Your task to perform on an android device: open app "Facebook Messenger" (install if not already installed) Image 0: 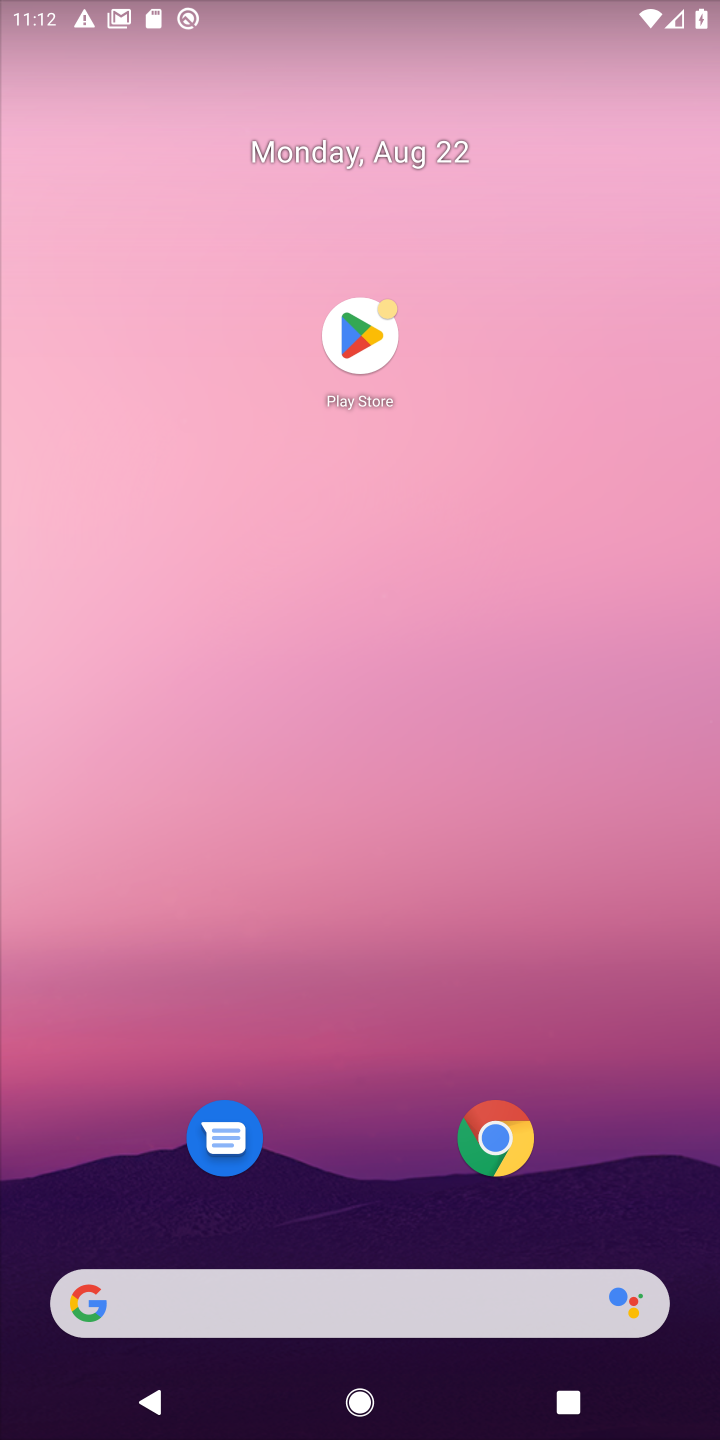
Step 0: click (370, 348)
Your task to perform on an android device: open app "Facebook Messenger" (install if not already installed) Image 1: 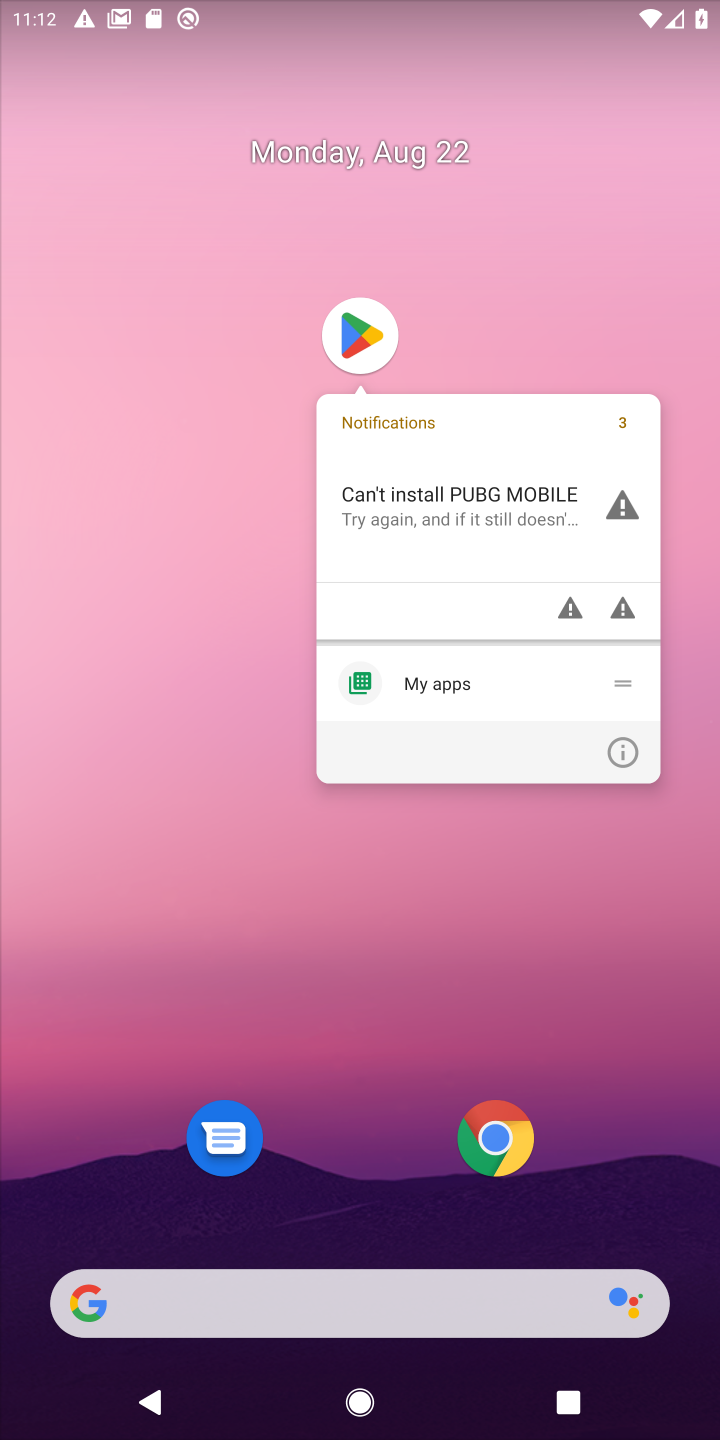
Step 1: click (366, 332)
Your task to perform on an android device: open app "Facebook Messenger" (install if not already installed) Image 2: 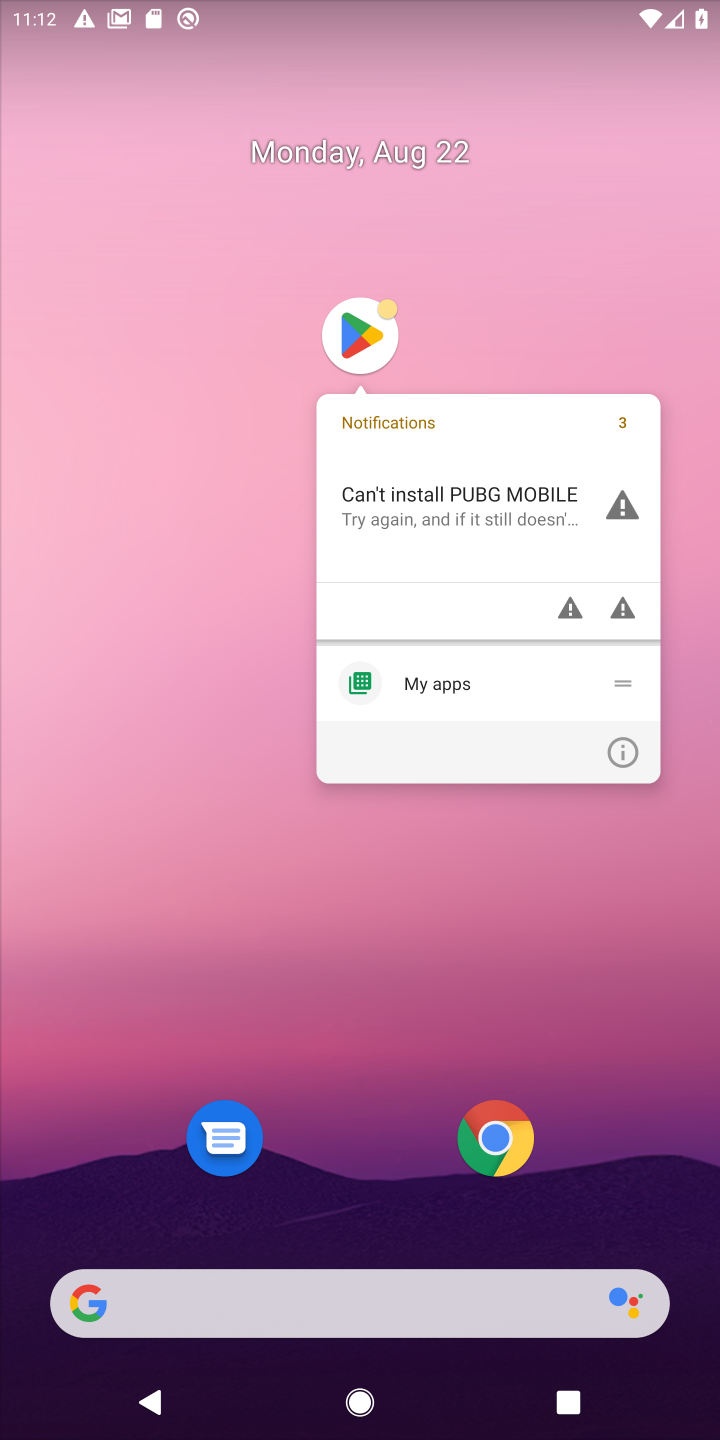
Step 2: click (366, 332)
Your task to perform on an android device: open app "Facebook Messenger" (install if not already installed) Image 3: 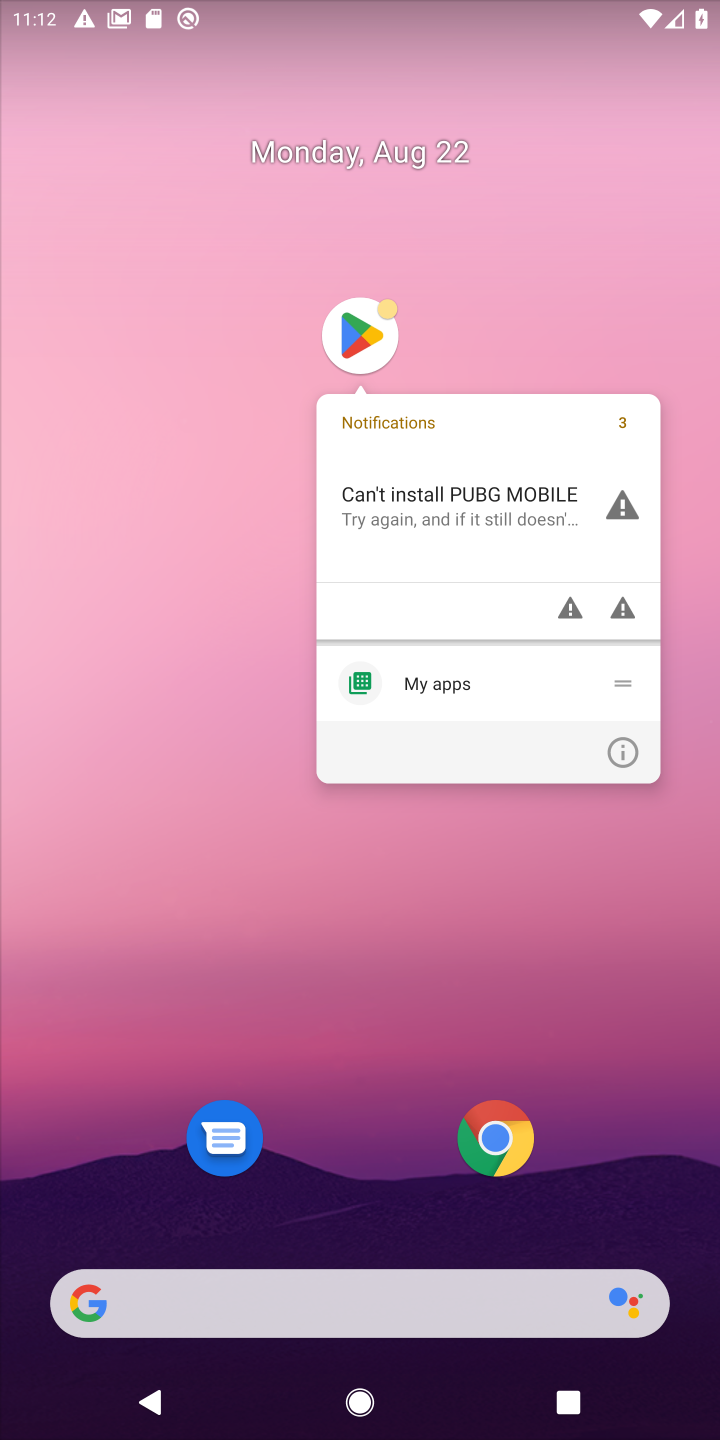
Step 3: click (343, 326)
Your task to perform on an android device: open app "Facebook Messenger" (install if not already installed) Image 4: 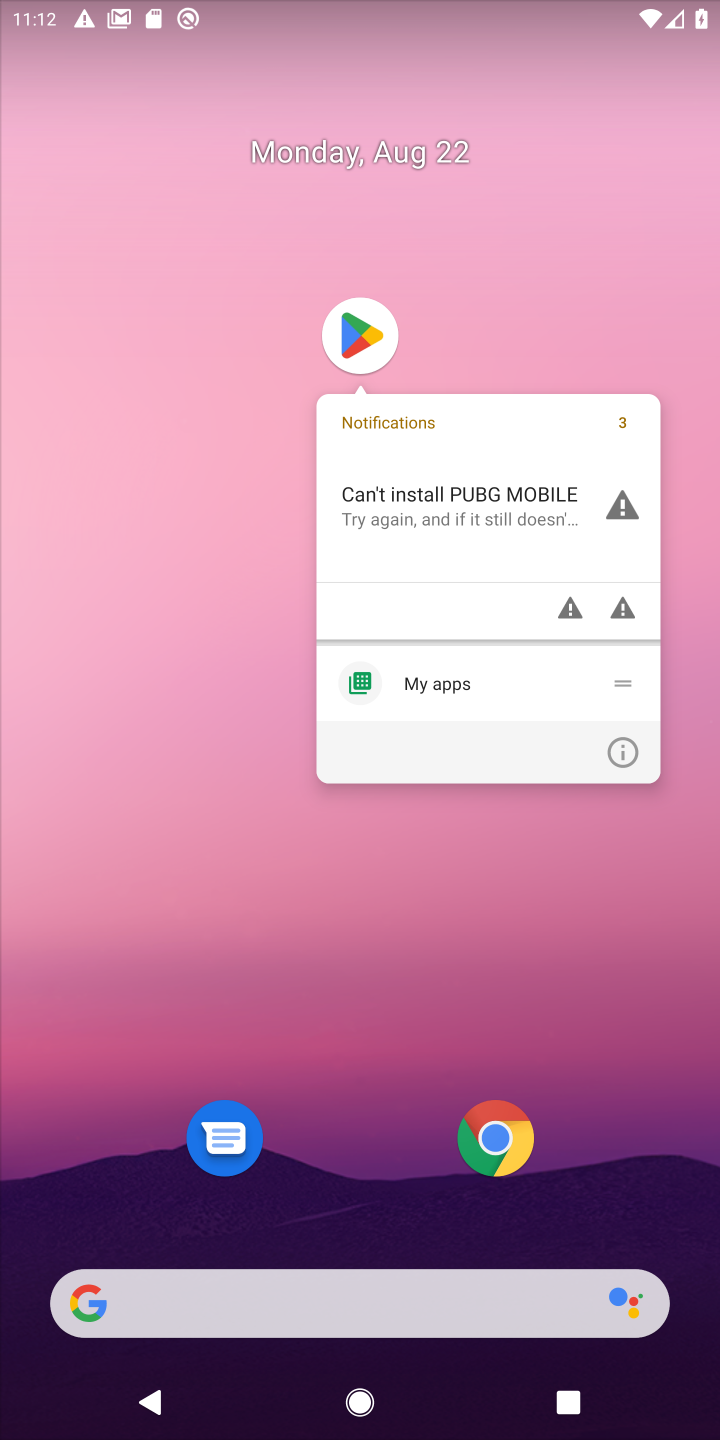
Step 4: click (364, 334)
Your task to perform on an android device: open app "Facebook Messenger" (install if not already installed) Image 5: 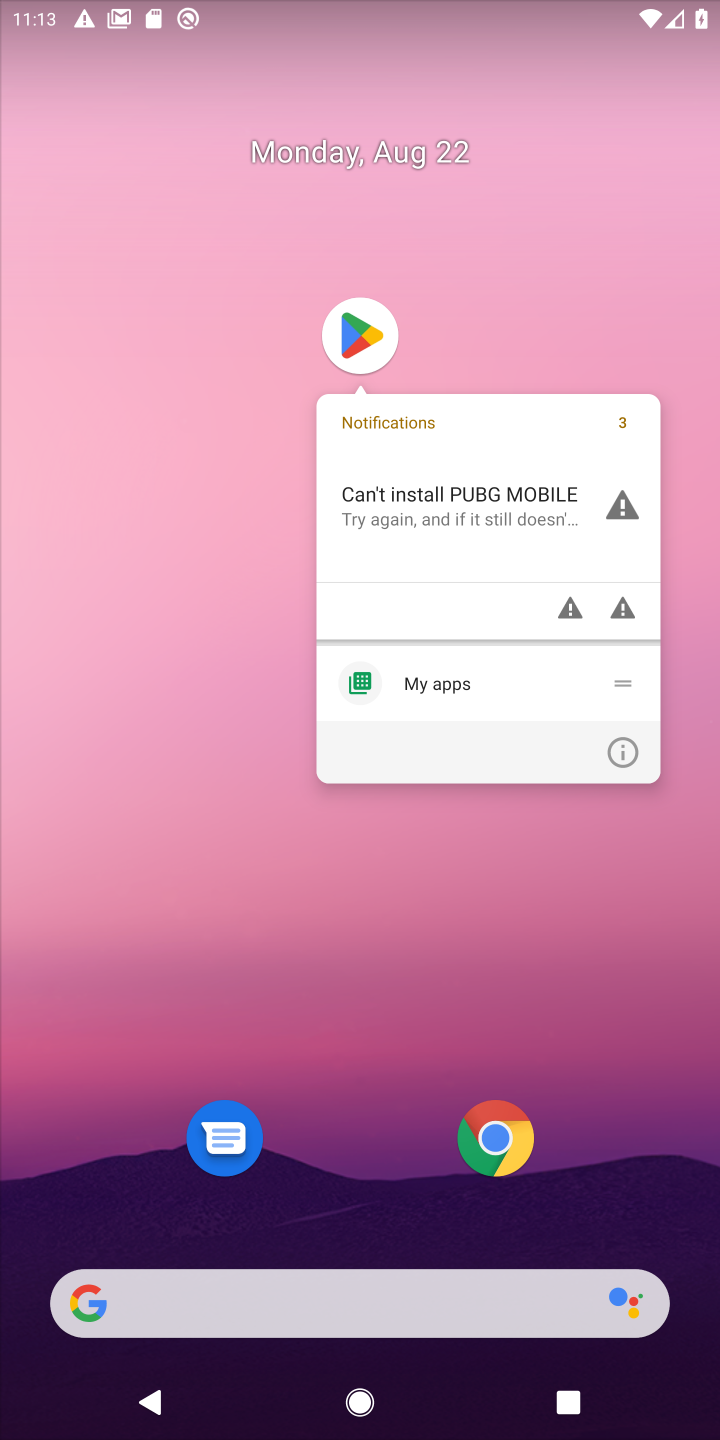
Step 5: click (182, 553)
Your task to perform on an android device: open app "Facebook Messenger" (install if not already installed) Image 6: 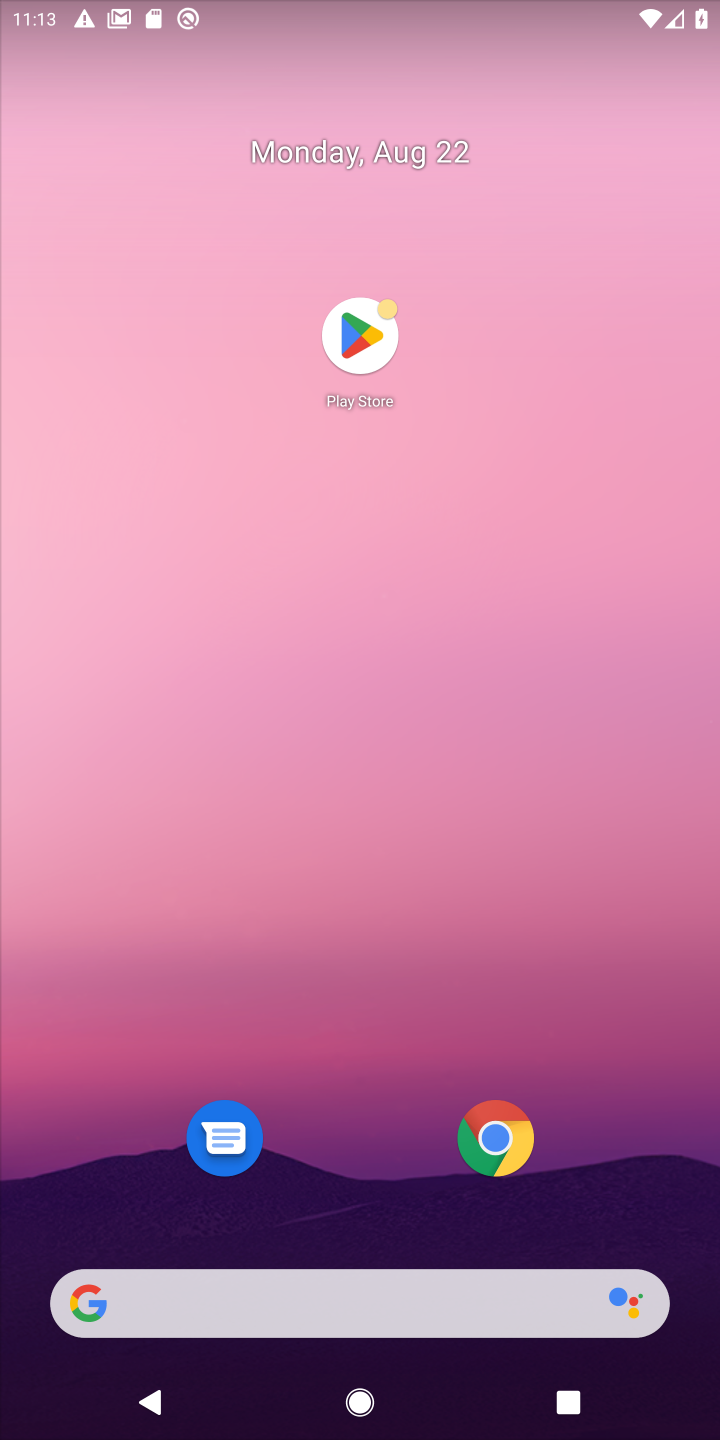
Step 6: click (581, 190)
Your task to perform on an android device: open app "Facebook Messenger" (install if not already installed) Image 7: 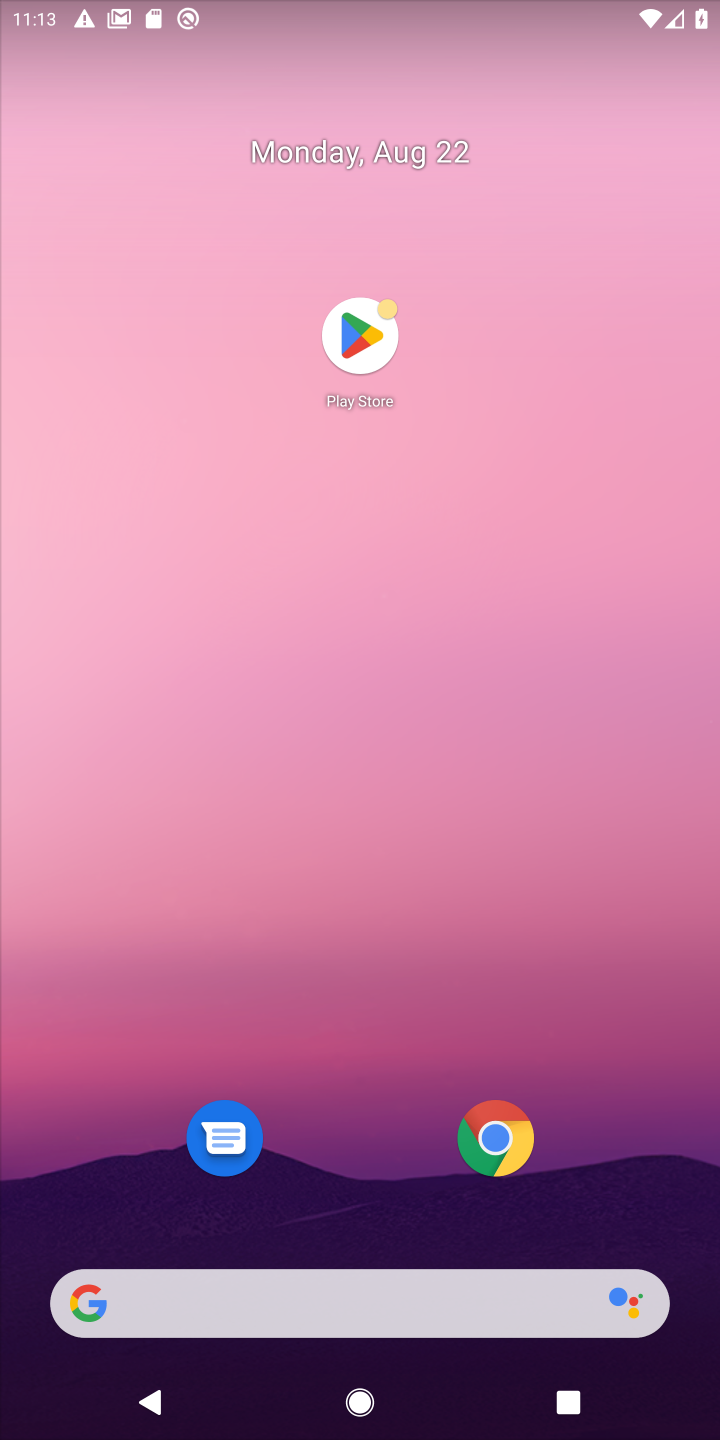
Step 7: click (357, 350)
Your task to perform on an android device: open app "Facebook Messenger" (install if not already installed) Image 8: 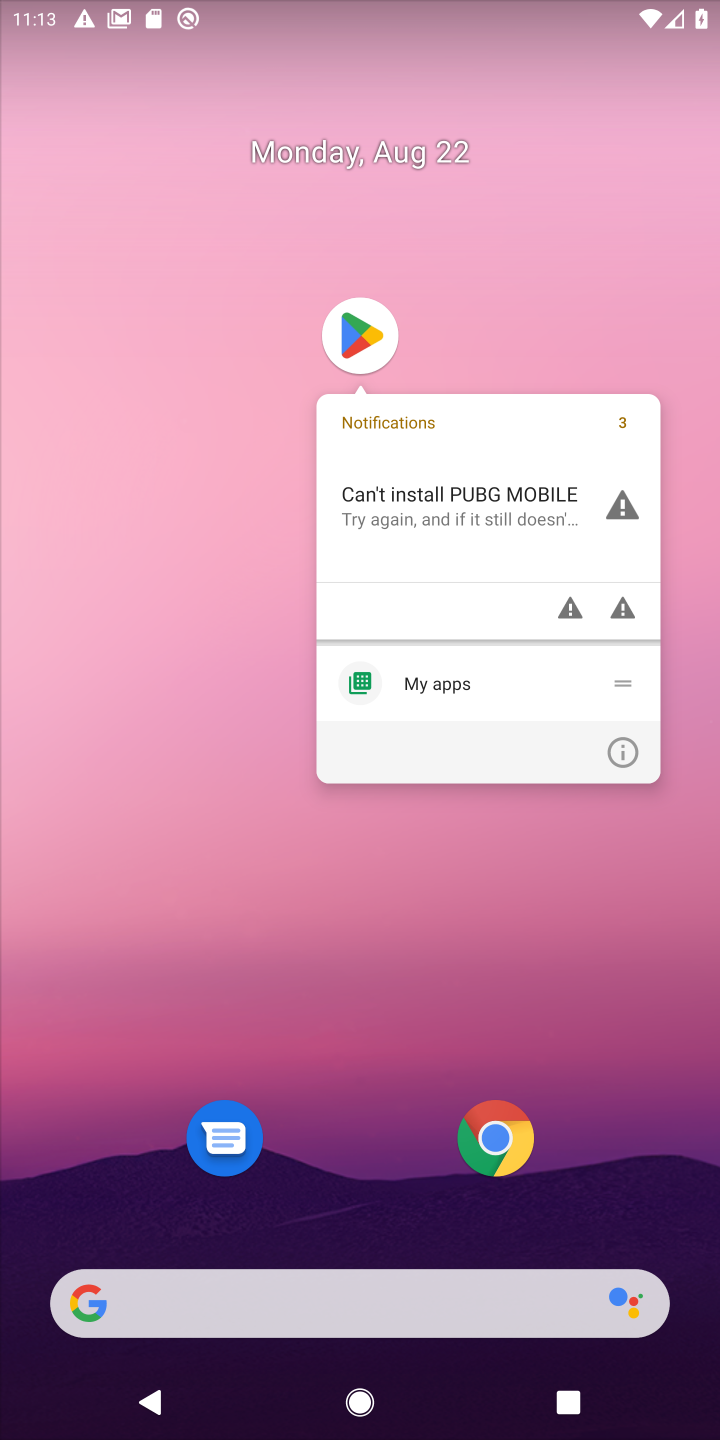
Step 8: click (342, 332)
Your task to perform on an android device: open app "Facebook Messenger" (install if not already installed) Image 9: 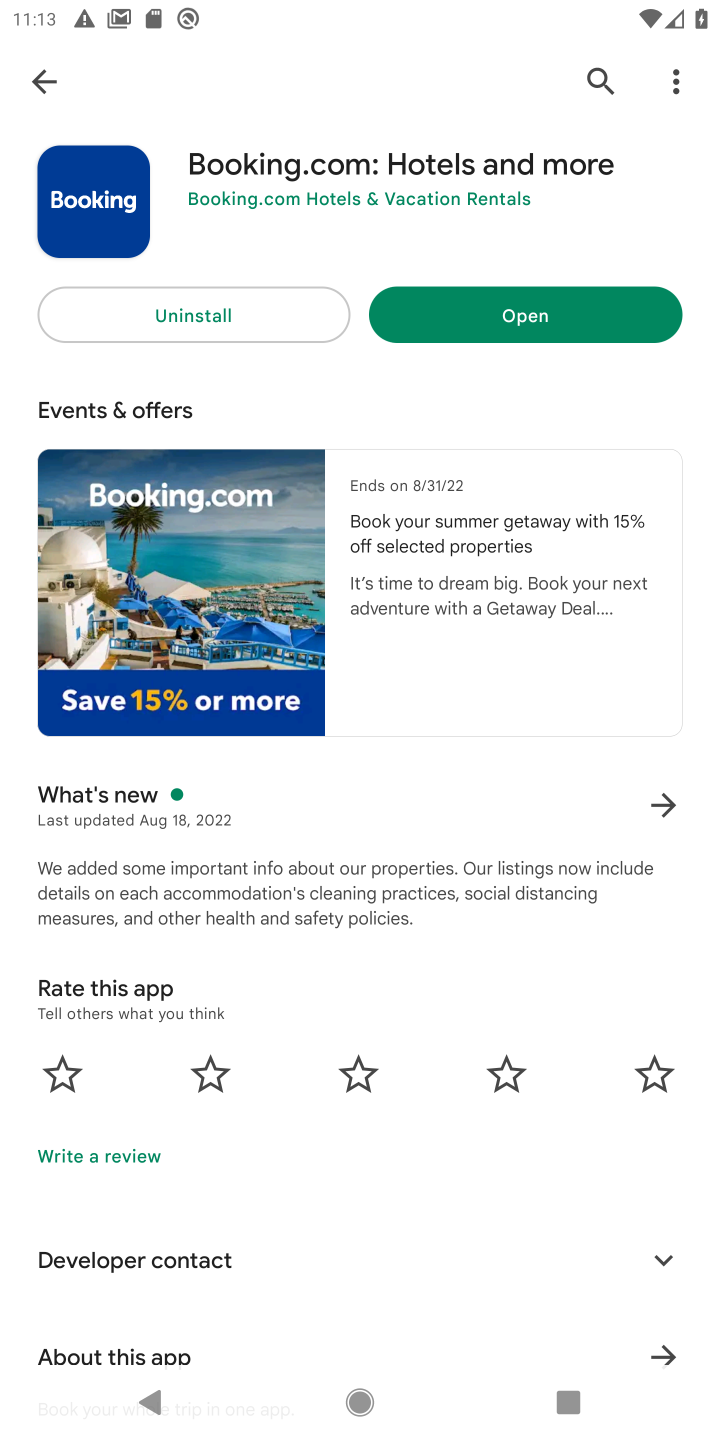
Step 9: click (587, 82)
Your task to perform on an android device: open app "Facebook Messenger" (install if not already installed) Image 10: 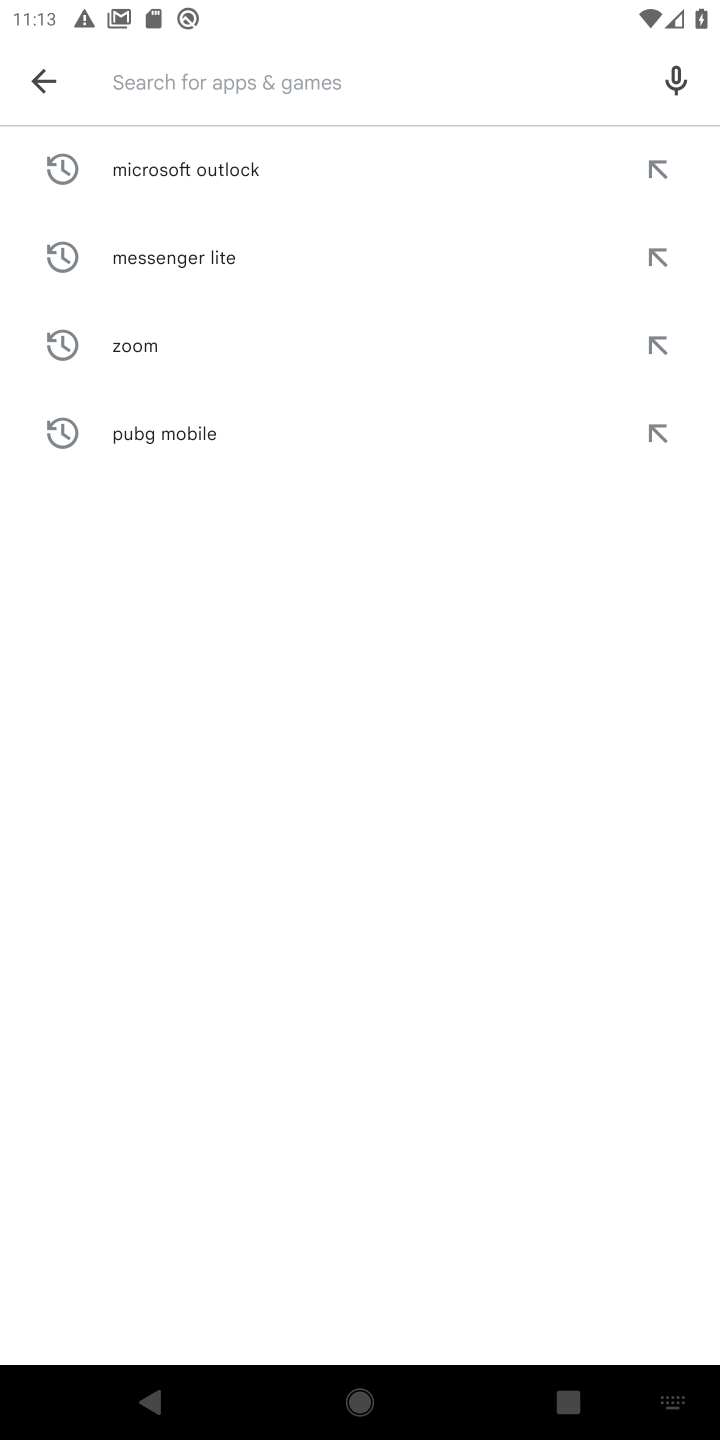
Step 10: type "fb messenger"
Your task to perform on an android device: open app "Facebook Messenger" (install if not already installed) Image 11: 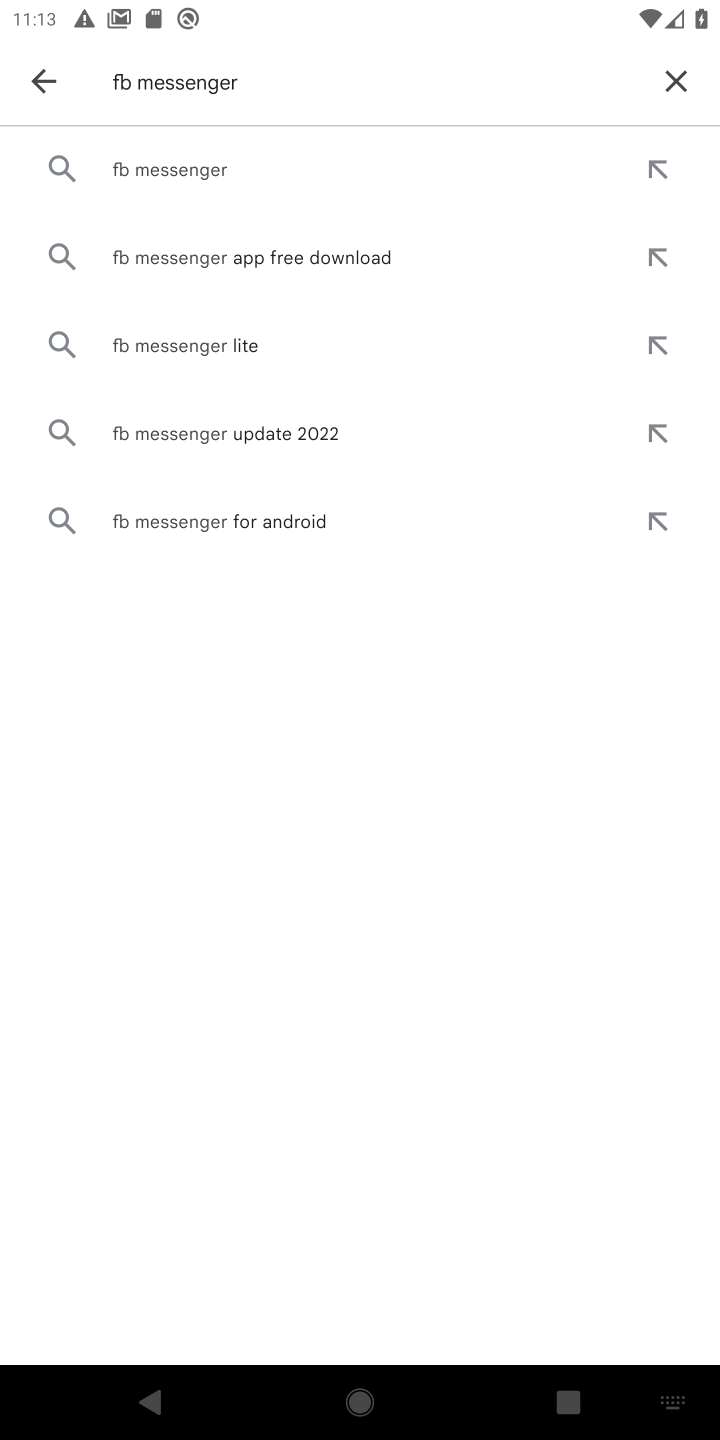
Step 11: click (176, 170)
Your task to perform on an android device: open app "Facebook Messenger" (install if not already installed) Image 12: 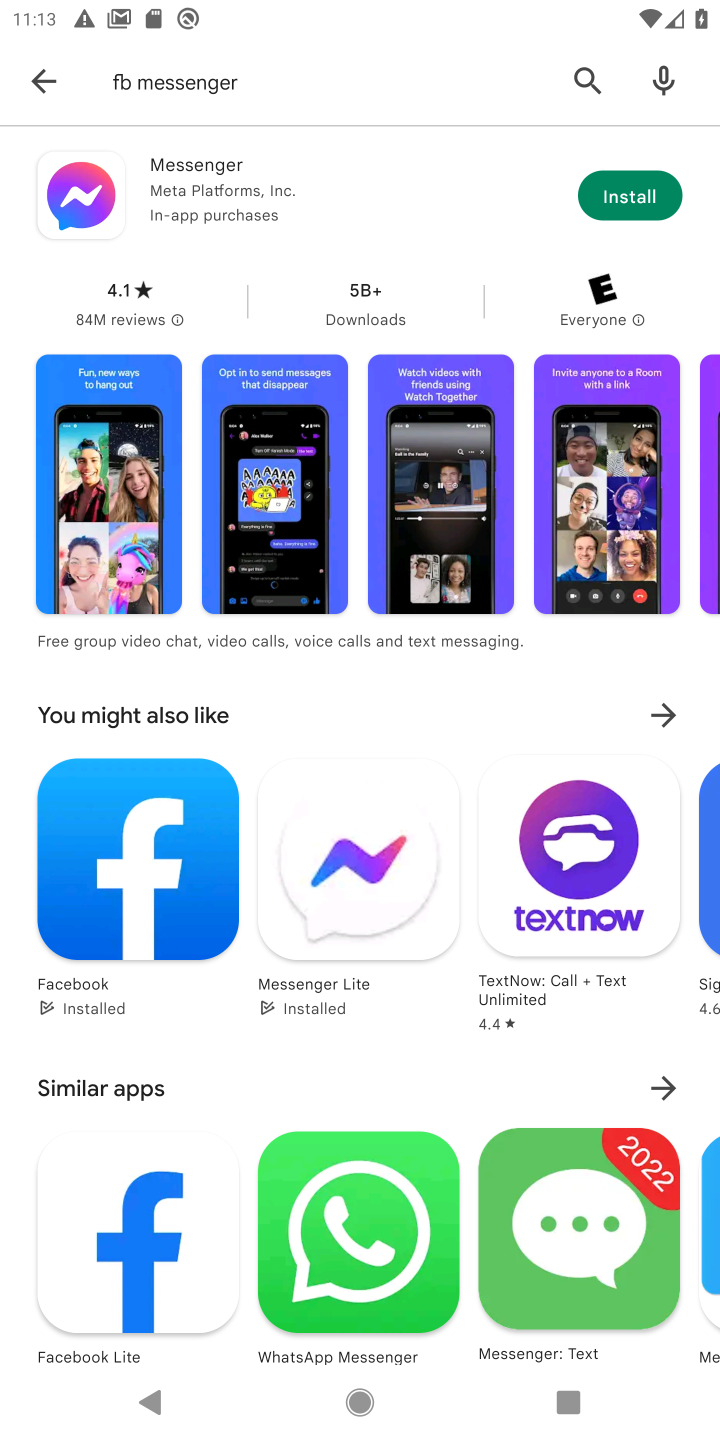
Step 12: click (613, 204)
Your task to perform on an android device: open app "Facebook Messenger" (install if not already installed) Image 13: 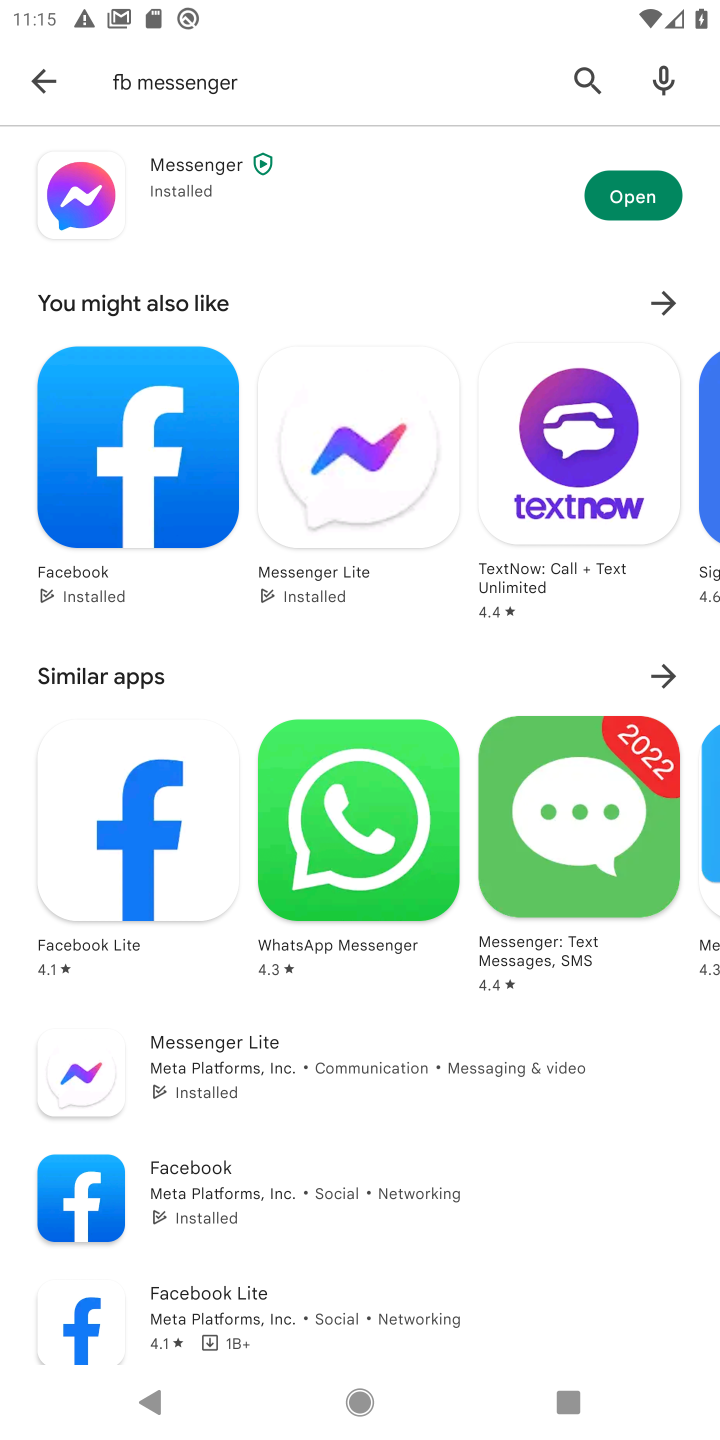
Step 13: click (629, 206)
Your task to perform on an android device: open app "Facebook Messenger" (install if not already installed) Image 14: 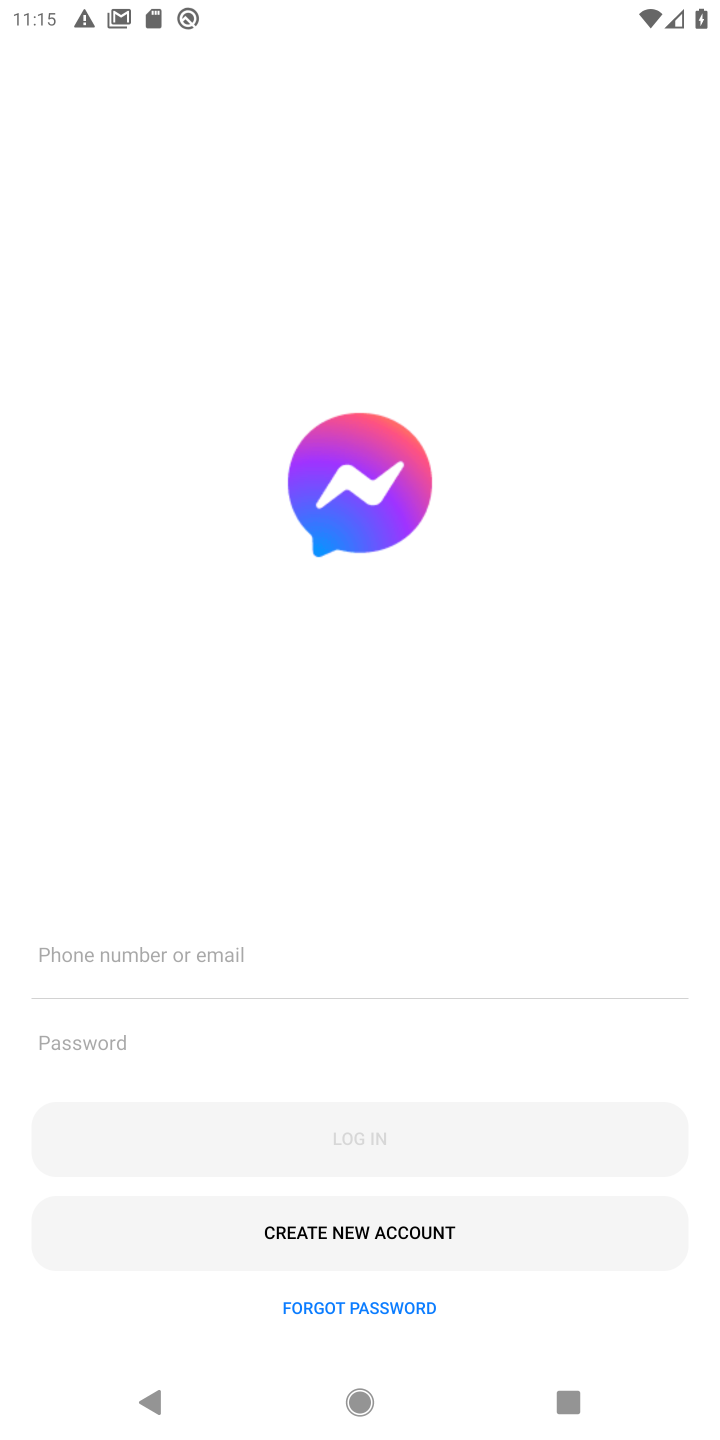
Step 14: task complete